Your task to perform on an android device: Check the weather Image 0: 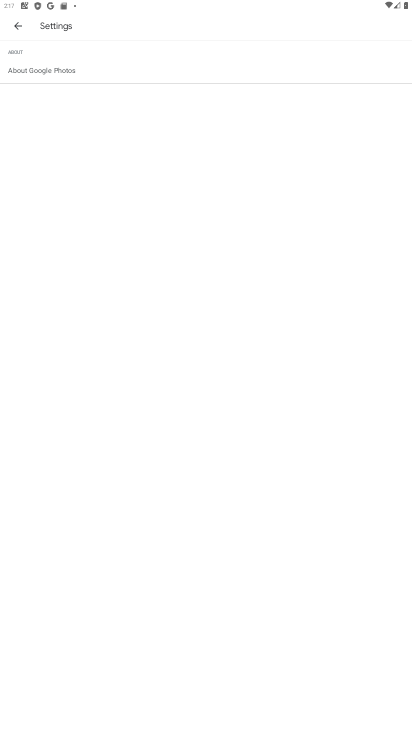
Step 0: press home button
Your task to perform on an android device: Check the weather Image 1: 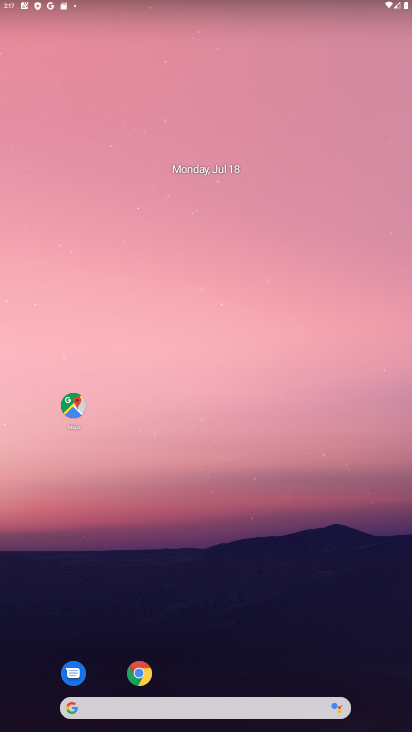
Step 1: drag from (196, 708) to (175, 279)
Your task to perform on an android device: Check the weather Image 2: 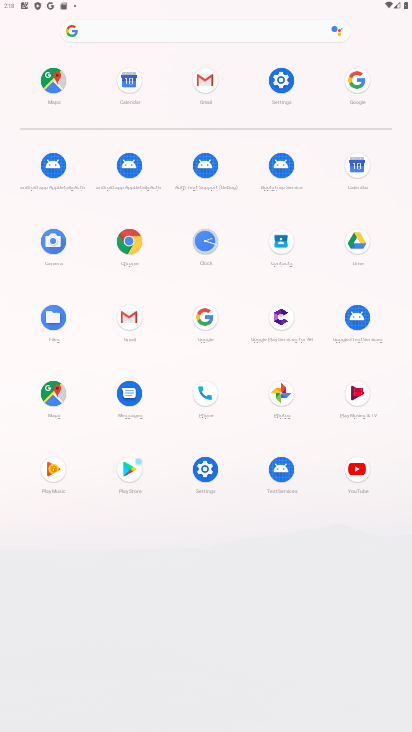
Step 2: click (204, 317)
Your task to perform on an android device: Check the weather Image 3: 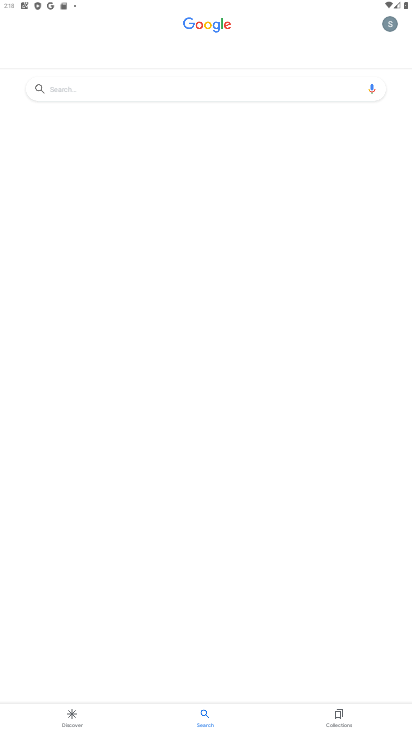
Step 3: click (167, 91)
Your task to perform on an android device: Check the weather Image 4: 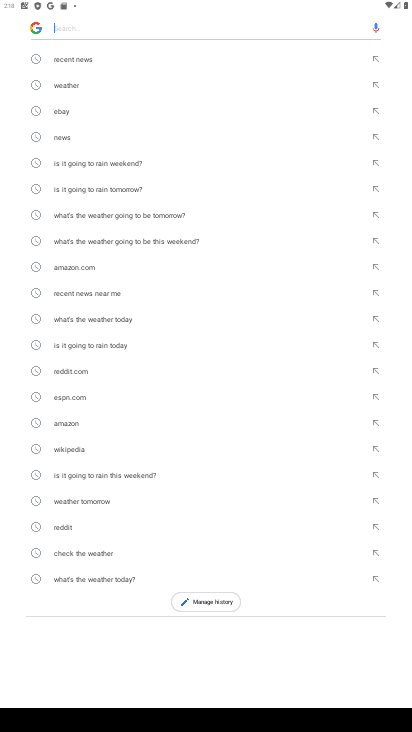
Step 4: click (77, 87)
Your task to perform on an android device: Check the weather Image 5: 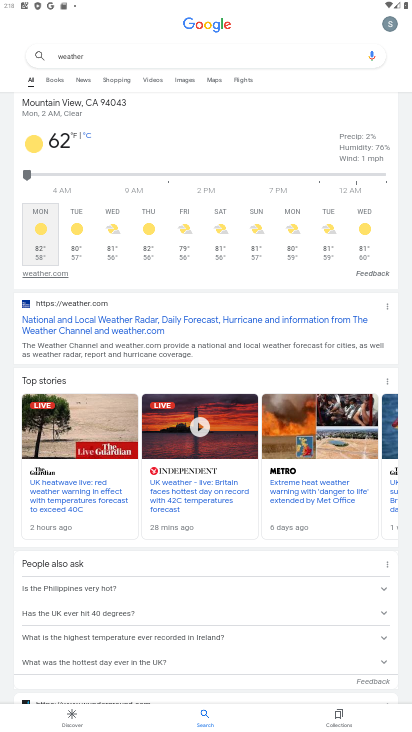
Step 5: task complete